Your task to perform on an android device: turn notification dots on Image 0: 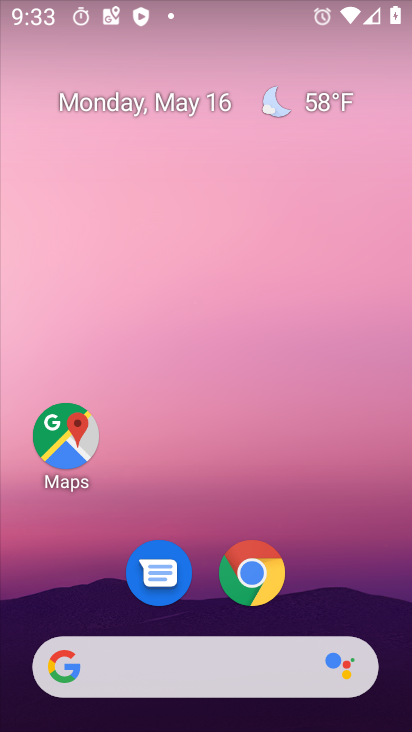
Step 0: drag from (308, 729) to (104, 144)
Your task to perform on an android device: turn notification dots on Image 1: 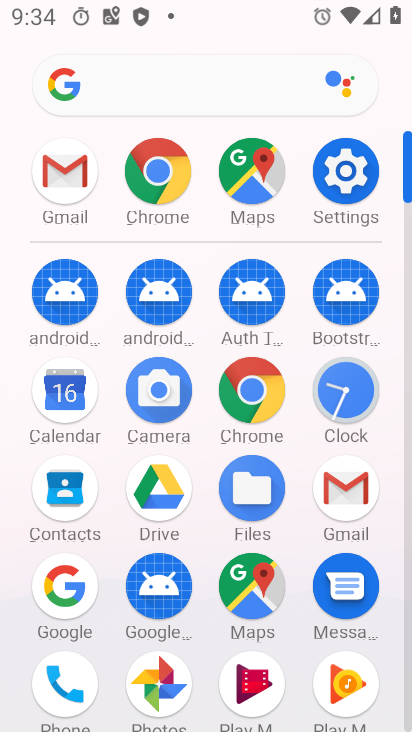
Step 1: click (332, 171)
Your task to perform on an android device: turn notification dots on Image 2: 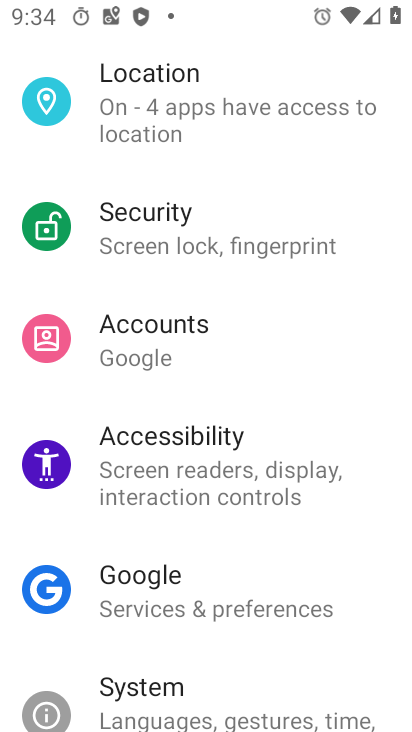
Step 2: drag from (238, 647) to (105, 54)
Your task to perform on an android device: turn notification dots on Image 3: 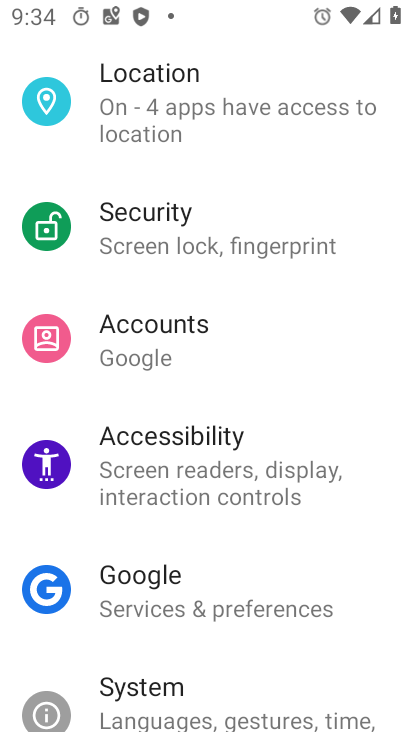
Step 3: drag from (175, 397) to (79, 49)
Your task to perform on an android device: turn notification dots on Image 4: 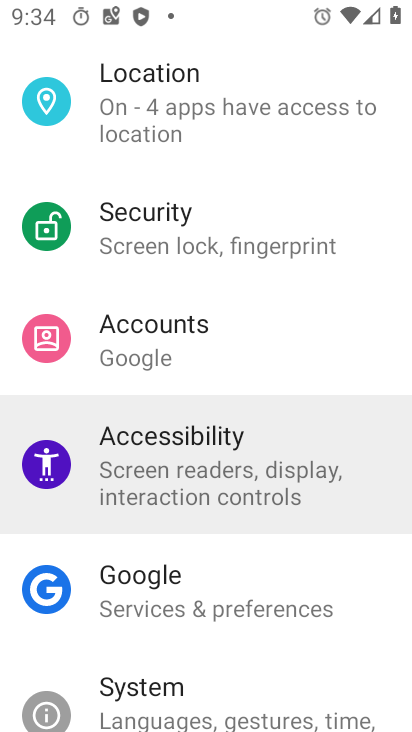
Step 4: drag from (217, 470) to (170, 97)
Your task to perform on an android device: turn notification dots on Image 5: 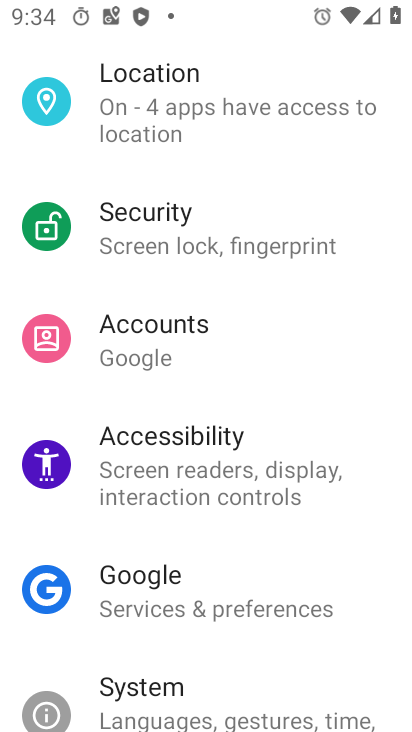
Step 5: drag from (236, 557) to (198, 105)
Your task to perform on an android device: turn notification dots on Image 6: 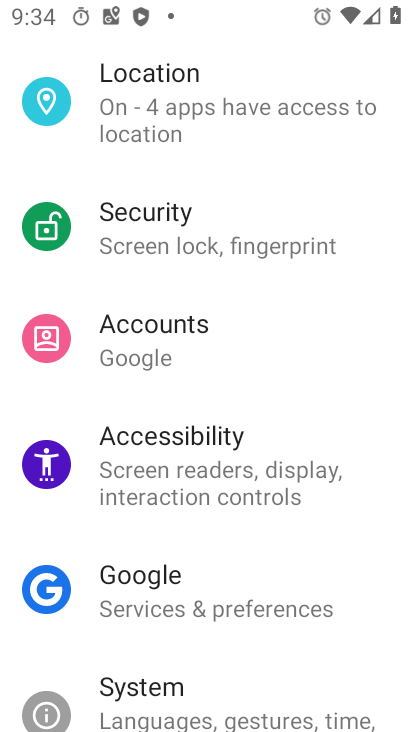
Step 6: drag from (198, 493) to (151, 28)
Your task to perform on an android device: turn notification dots on Image 7: 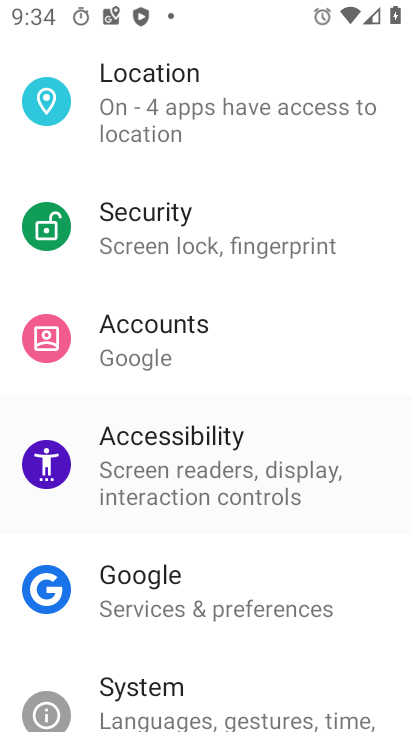
Step 7: drag from (165, 393) to (151, 30)
Your task to perform on an android device: turn notification dots on Image 8: 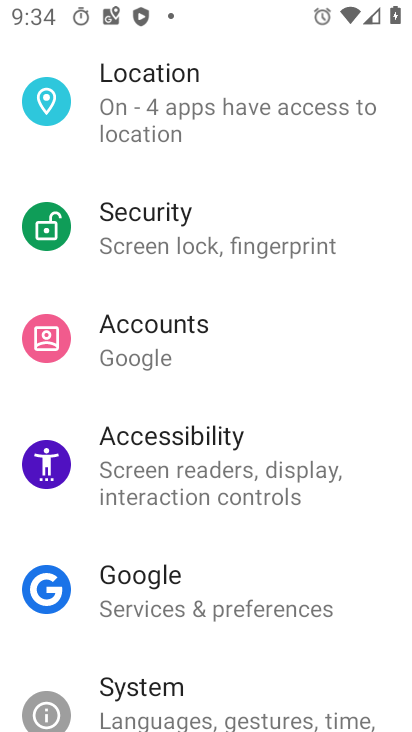
Step 8: drag from (219, 464) to (140, 76)
Your task to perform on an android device: turn notification dots on Image 9: 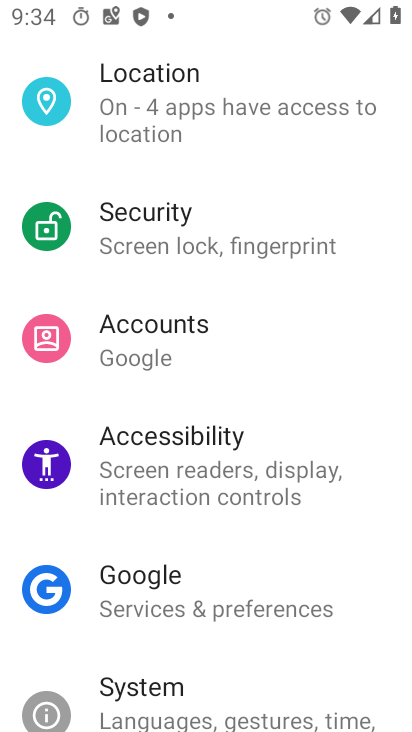
Step 9: click (238, 262)
Your task to perform on an android device: turn notification dots on Image 10: 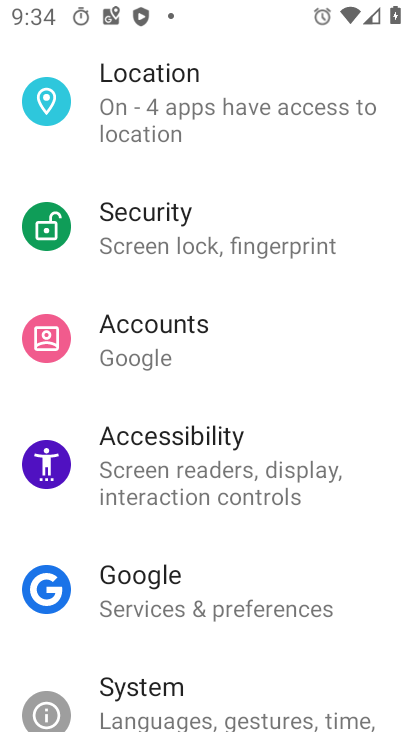
Step 10: drag from (267, 648) to (168, 146)
Your task to perform on an android device: turn notification dots on Image 11: 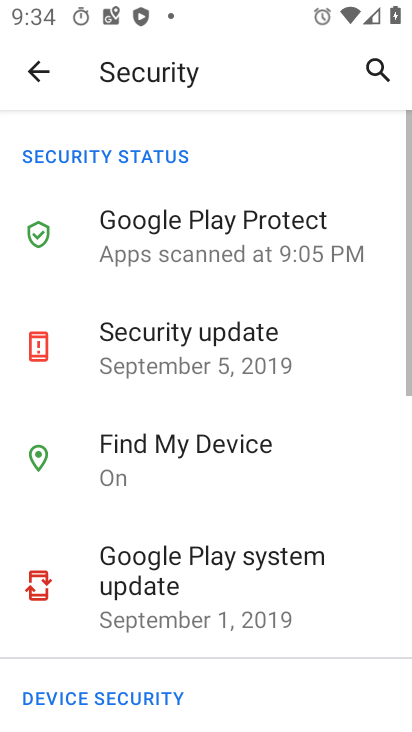
Step 11: click (200, 234)
Your task to perform on an android device: turn notification dots on Image 12: 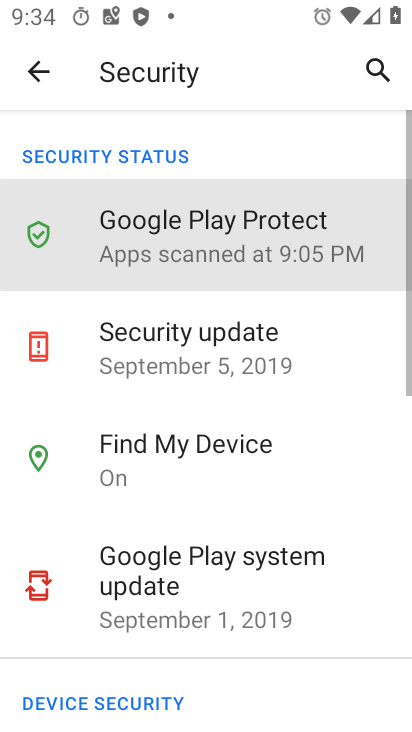
Step 12: click (201, 525)
Your task to perform on an android device: turn notification dots on Image 13: 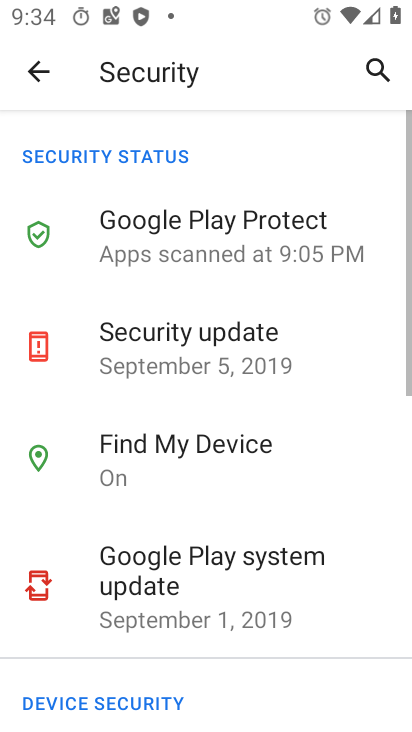
Step 13: click (201, 458)
Your task to perform on an android device: turn notification dots on Image 14: 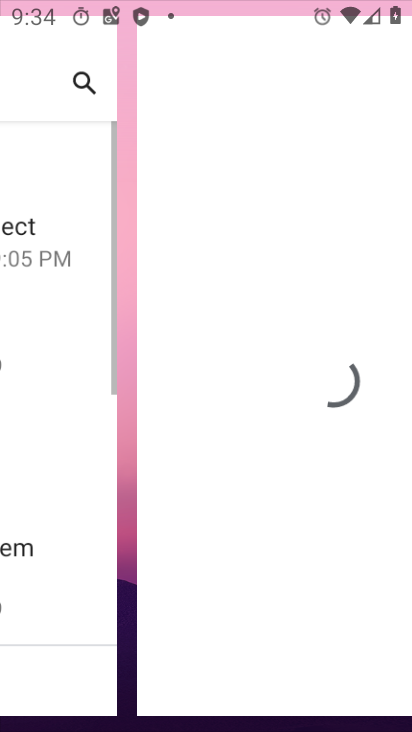
Step 14: click (199, 594)
Your task to perform on an android device: turn notification dots on Image 15: 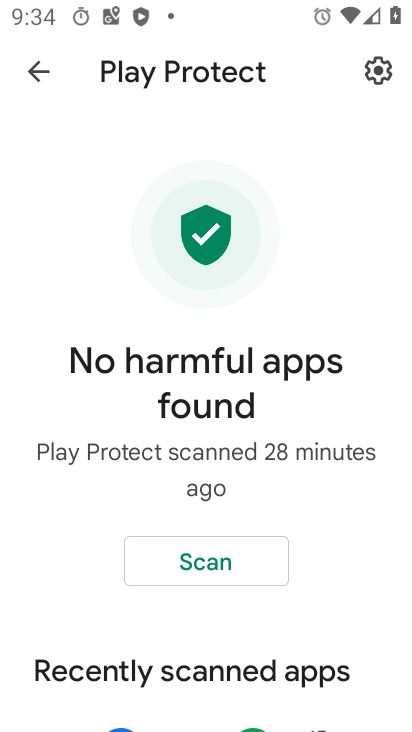
Step 15: press back button
Your task to perform on an android device: turn notification dots on Image 16: 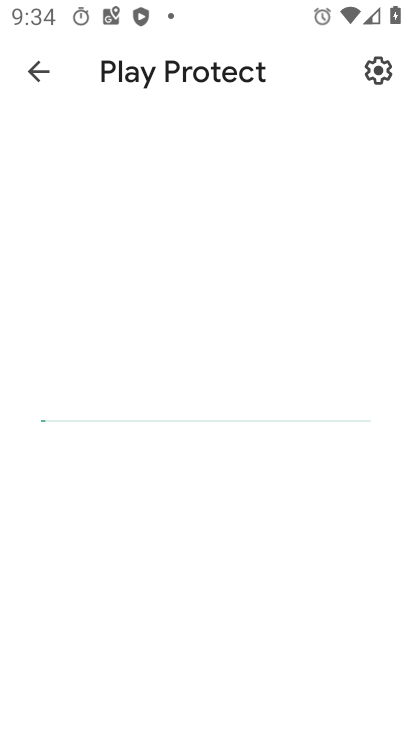
Step 16: press back button
Your task to perform on an android device: turn notification dots on Image 17: 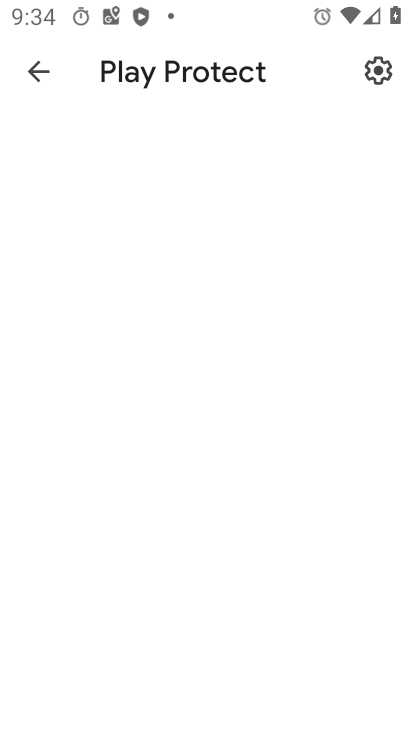
Step 17: press back button
Your task to perform on an android device: turn notification dots on Image 18: 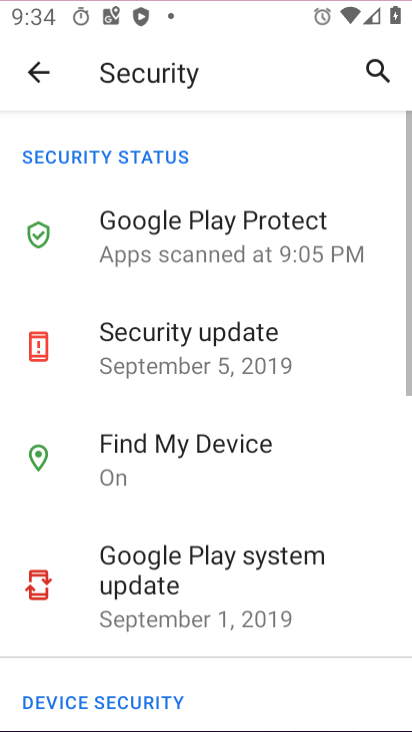
Step 18: press back button
Your task to perform on an android device: turn notification dots on Image 19: 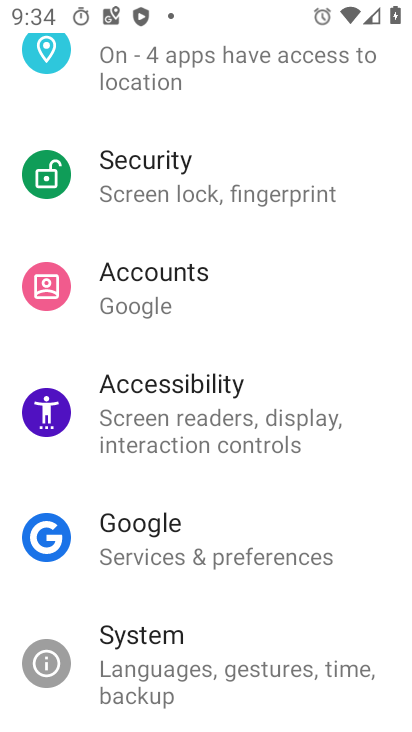
Step 19: press back button
Your task to perform on an android device: turn notification dots on Image 20: 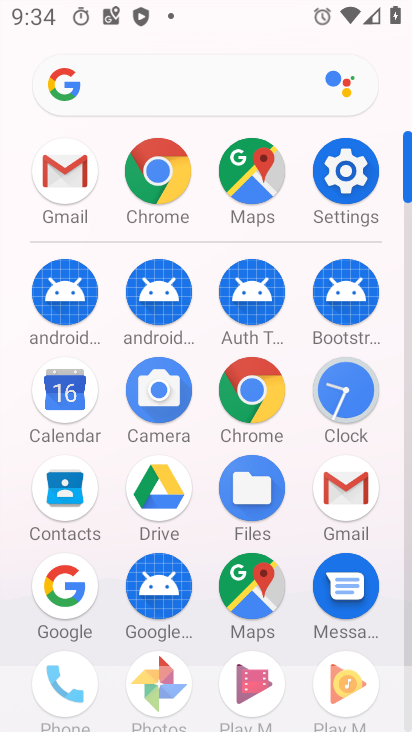
Step 20: click (338, 170)
Your task to perform on an android device: turn notification dots on Image 21: 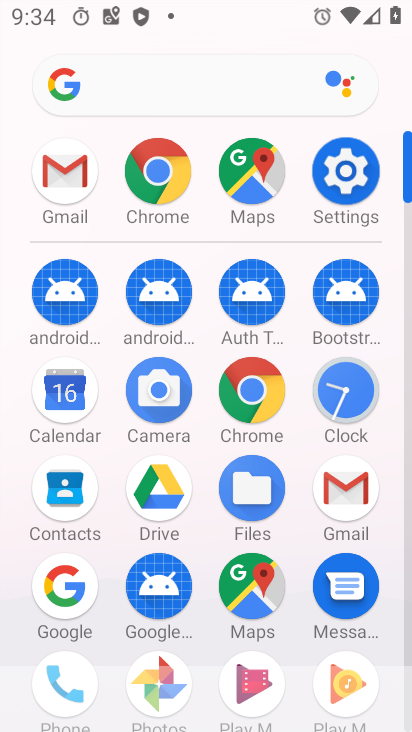
Step 21: click (338, 170)
Your task to perform on an android device: turn notification dots on Image 22: 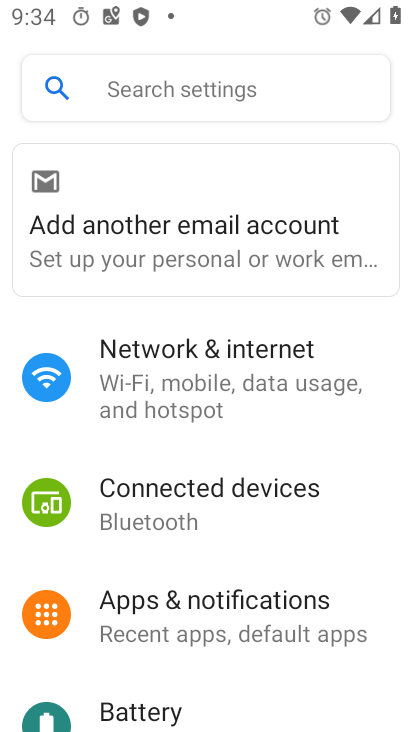
Step 22: click (202, 611)
Your task to perform on an android device: turn notification dots on Image 23: 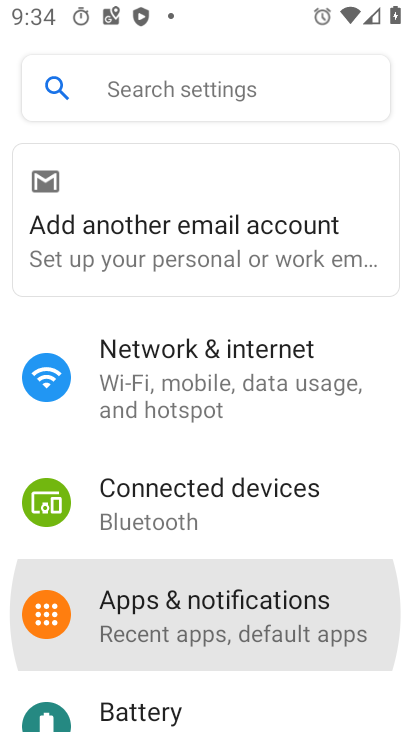
Step 23: click (202, 611)
Your task to perform on an android device: turn notification dots on Image 24: 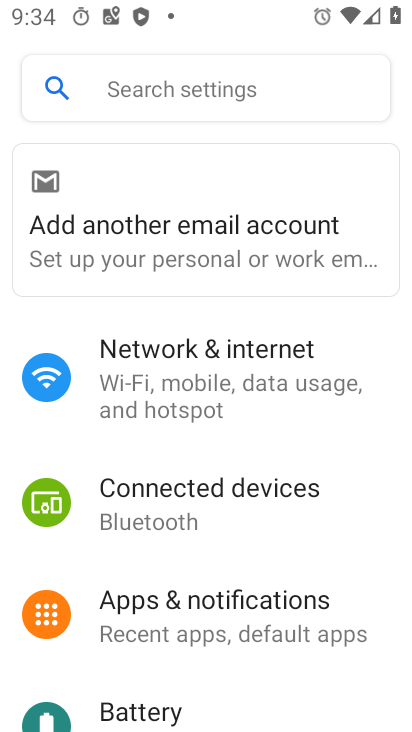
Step 24: click (203, 606)
Your task to perform on an android device: turn notification dots on Image 25: 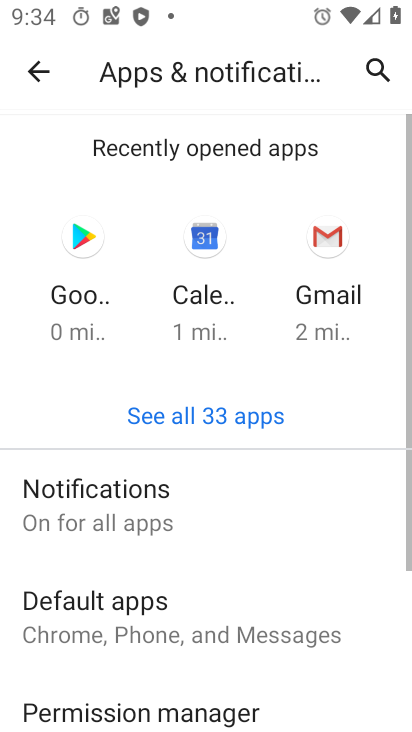
Step 25: drag from (178, 530) to (132, 174)
Your task to perform on an android device: turn notification dots on Image 26: 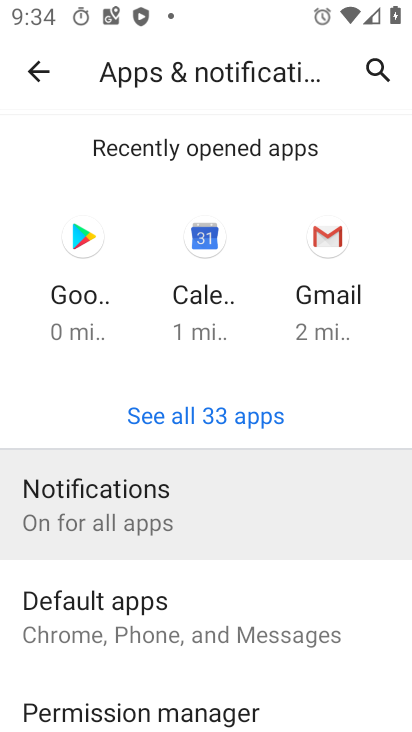
Step 26: drag from (229, 628) to (163, 138)
Your task to perform on an android device: turn notification dots on Image 27: 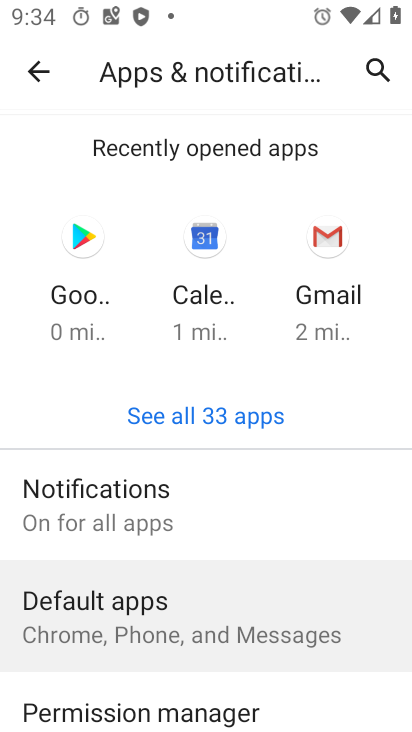
Step 27: drag from (212, 415) to (180, 133)
Your task to perform on an android device: turn notification dots on Image 28: 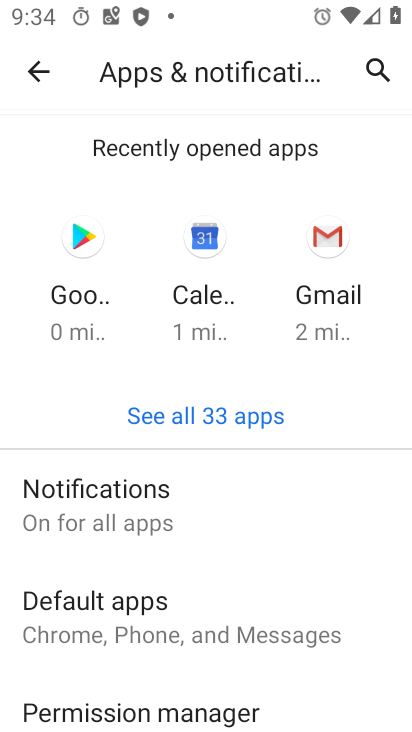
Step 28: drag from (257, 449) to (212, 127)
Your task to perform on an android device: turn notification dots on Image 29: 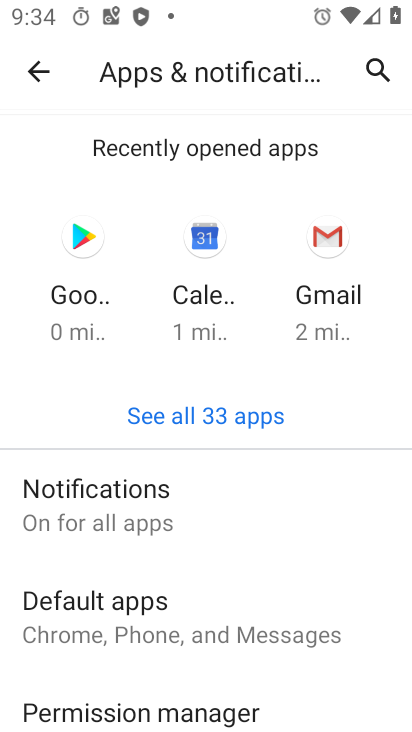
Step 29: click (97, 411)
Your task to perform on an android device: turn notification dots on Image 30: 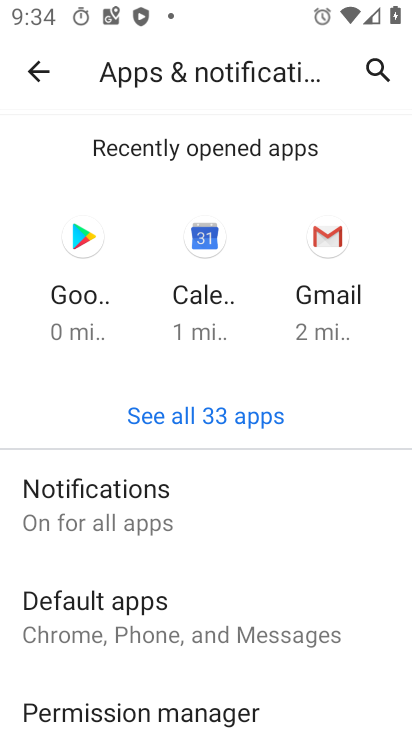
Step 30: click (90, 490)
Your task to perform on an android device: turn notification dots on Image 31: 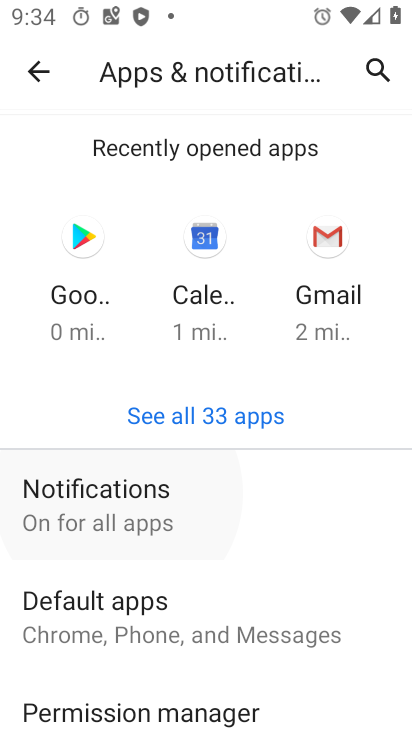
Step 31: click (90, 490)
Your task to perform on an android device: turn notification dots on Image 32: 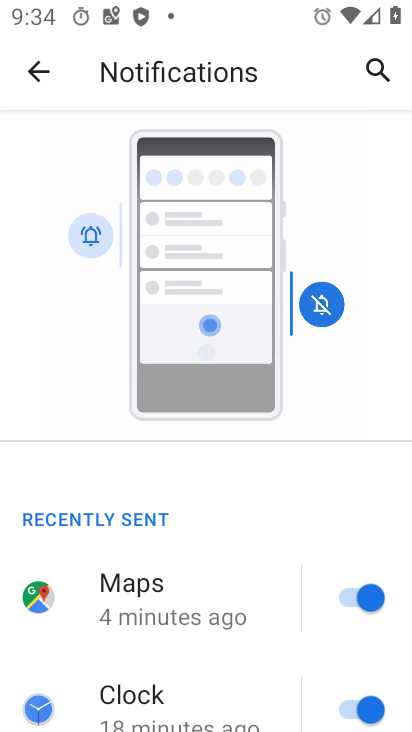
Step 32: drag from (189, 569) to (199, 74)
Your task to perform on an android device: turn notification dots on Image 33: 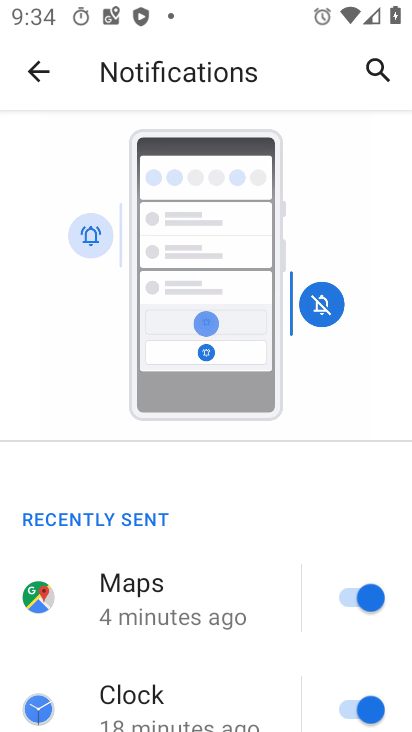
Step 33: drag from (316, 535) to (254, 140)
Your task to perform on an android device: turn notification dots on Image 34: 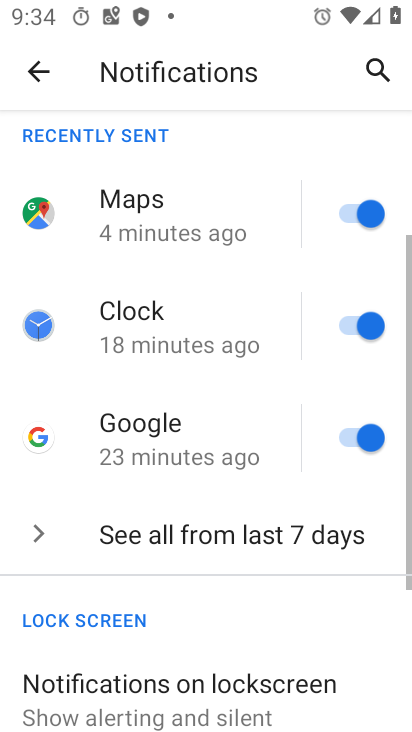
Step 34: drag from (123, 625) to (5, 164)
Your task to perform on an android device: turn notification dots on Image 35: 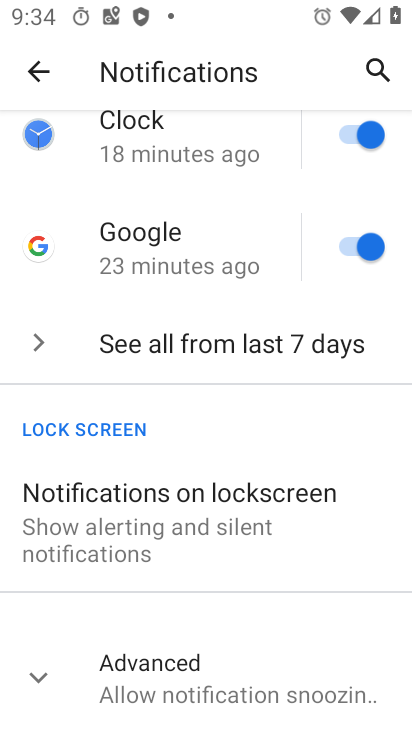
Step 35: click (155, 680)
Your task to perform on an android device: turn notification dots on Image 36: 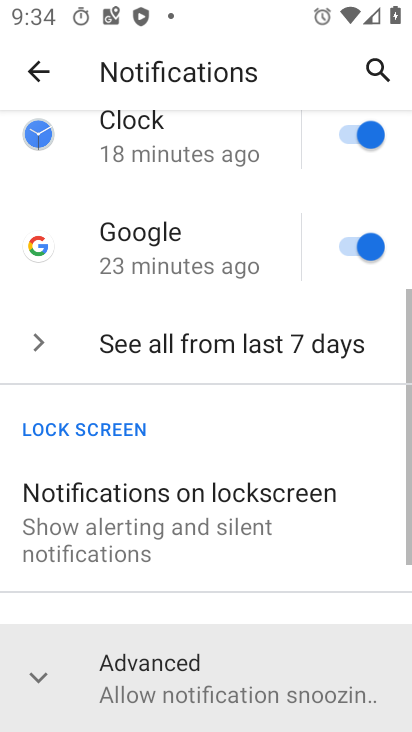
Step 36: click (159, 675)
Your task to perform on an android device: turn notification dots on Image 37: 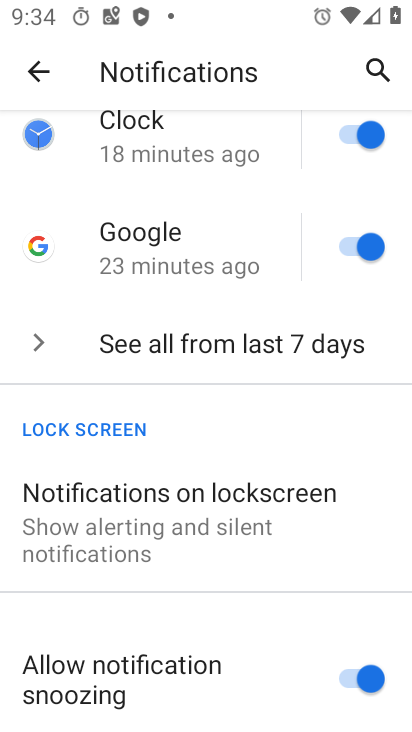
Step 37: drag from (165, 646) to (143, 350)
Your task to perform on an android device: turn notification dots on Image 38: 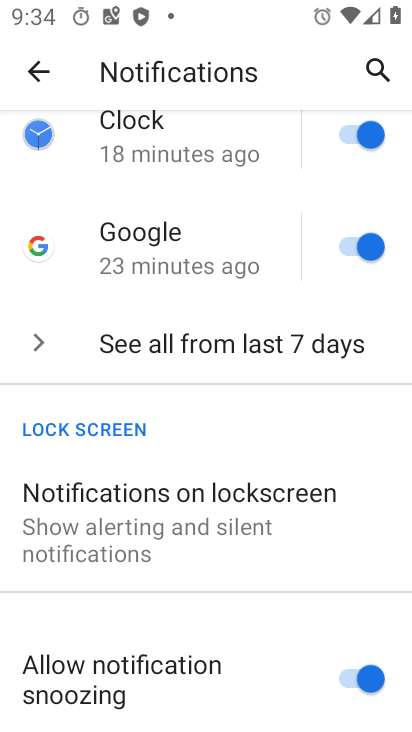
Step 38: drag from (237, 596) to (95, 199)
Your task to perform on an android device: turn notification dots on Image 39: 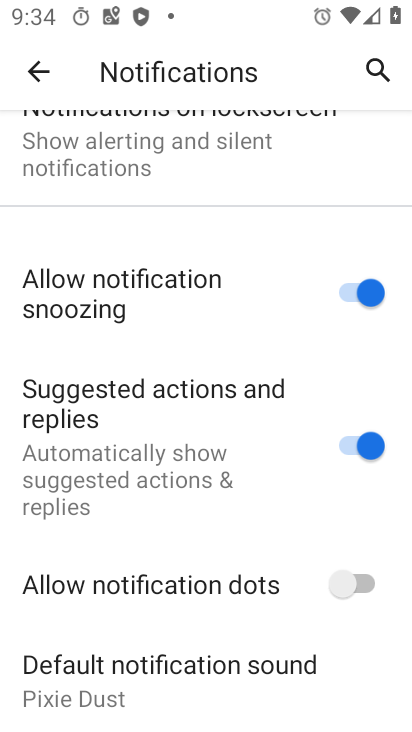
Step 39: click (343, 578)
Your task to perform on an android device: turn notification dots on Image 40: 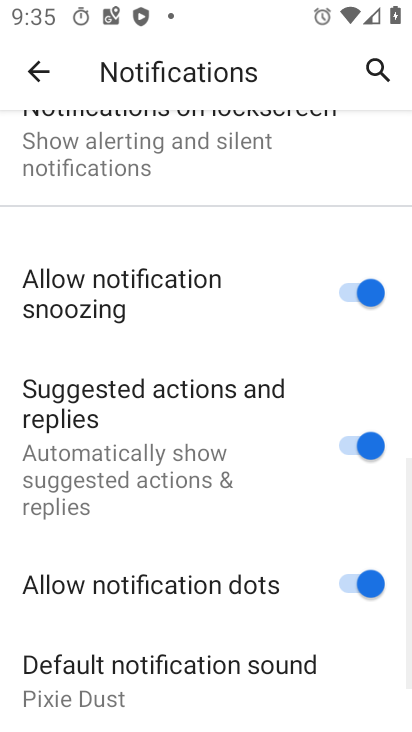
Step 40: task complete